Your task to perform on an android device: Search for sushi restaurants on Maps Image 0: 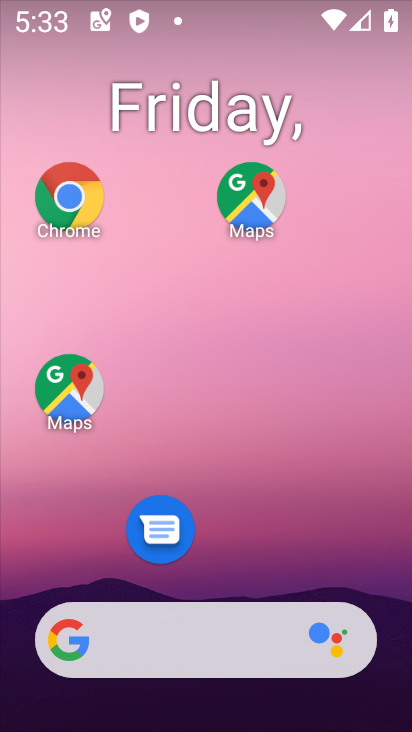
Step 0: drag from (261, 361) to (311, 29)
Your task to perform on an android device: Search for sushi restaurants on Maps Image 1: 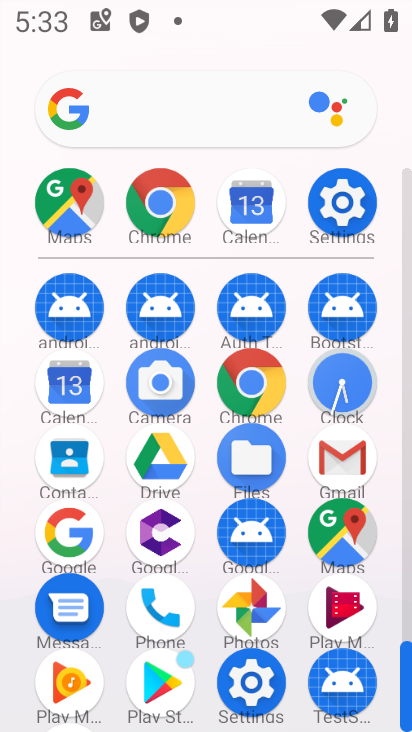
Step 1: click (71, 219)
Your task to perform on an android device: Search for sushi restaurants on Maps Image 2: 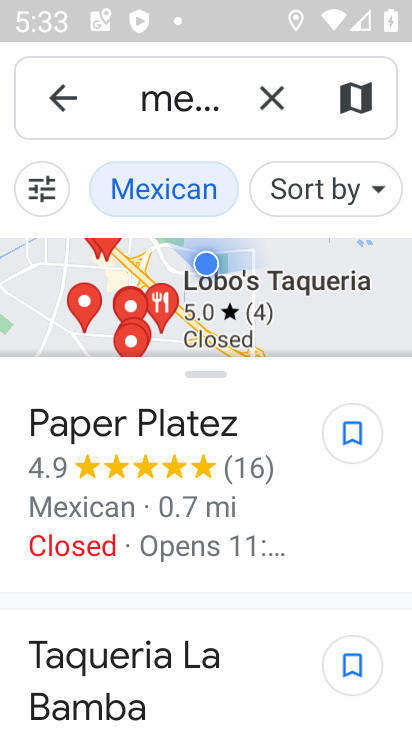
Step 2: click (266, 95)
Your task to perform on an android device: Search for sushi restaurants on Maps Image 3: 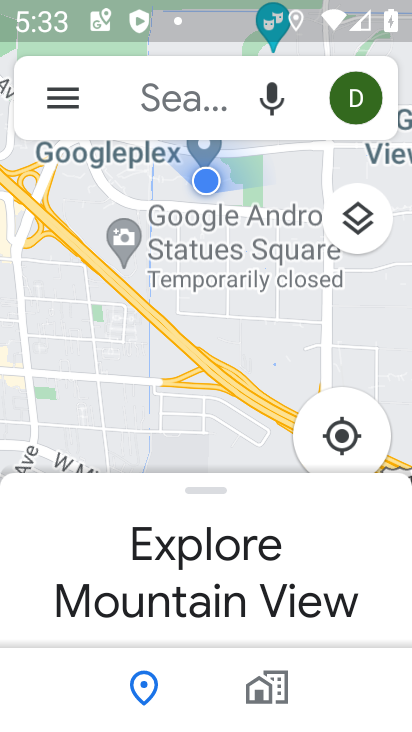
Step 3: click (187, 102)
Your task to perform on an android device: Search for sushi restaurants on Maps Image 4: 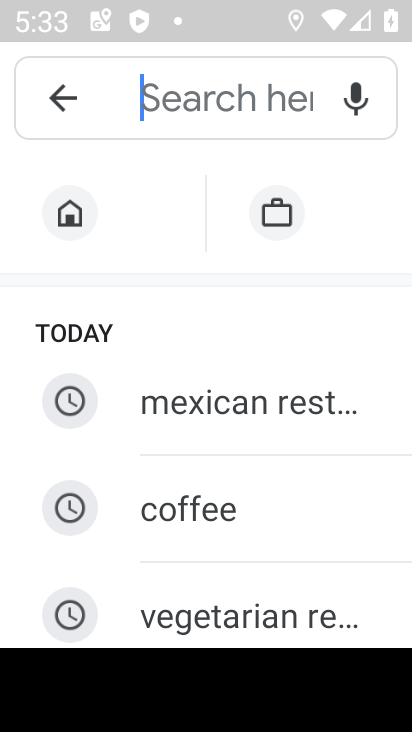
Step 4: drag from (198, 567) to (254, 227)
Your task to perform on an android device: Search for sushi restaurants on Maps Image 5: 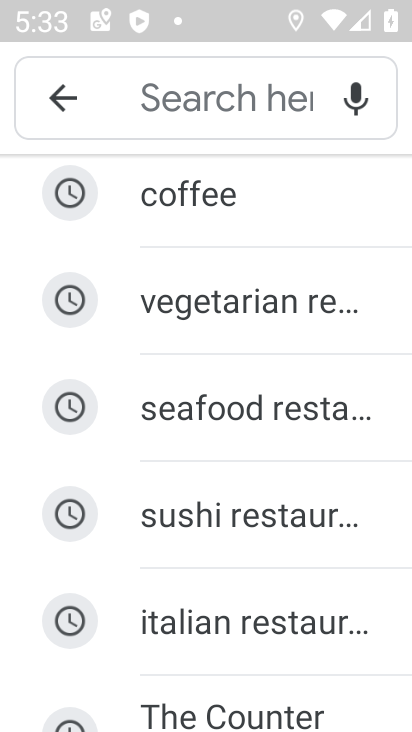
Step 5: click (212, 517)
Your task to perform on an android device: Search for sushi restaurants on Maps Image 6: 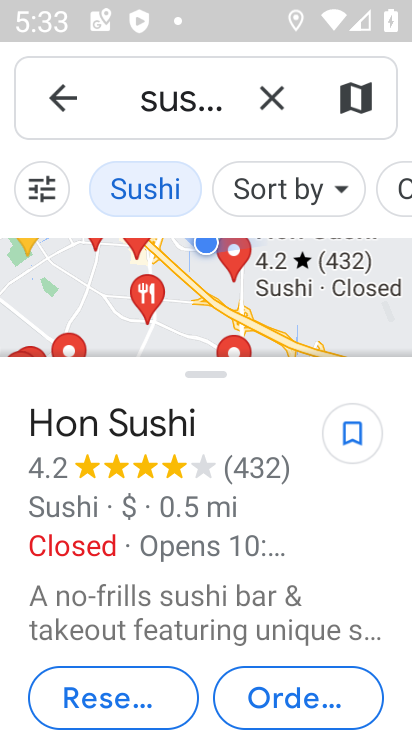
Step 6: task complete